Your task to perform on an android device: Open display settings Image 0: 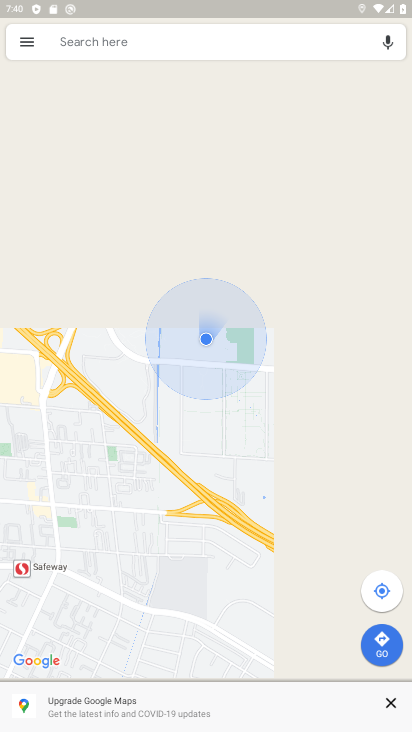
Step 0: press home button
Your task to perform on an android device: Open display settings Image 1: 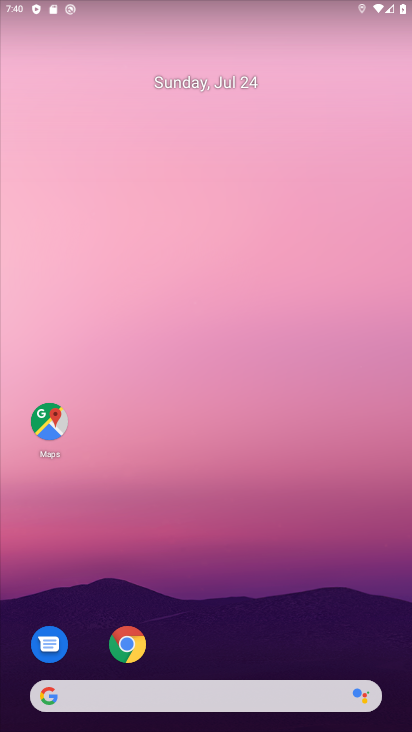
Step 1: drag from (258, 636) to (325, 9)
Your task to perform on an android device: Open display settings Image 2: 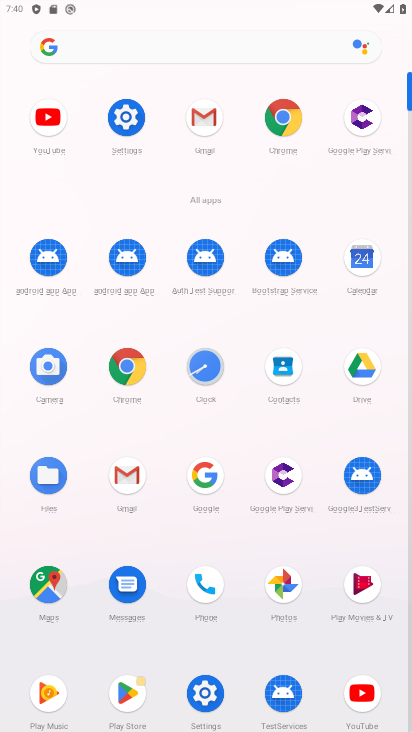
Step 2: click (137, 124)
Your task to perform on an android device: Open display settings Image 3: 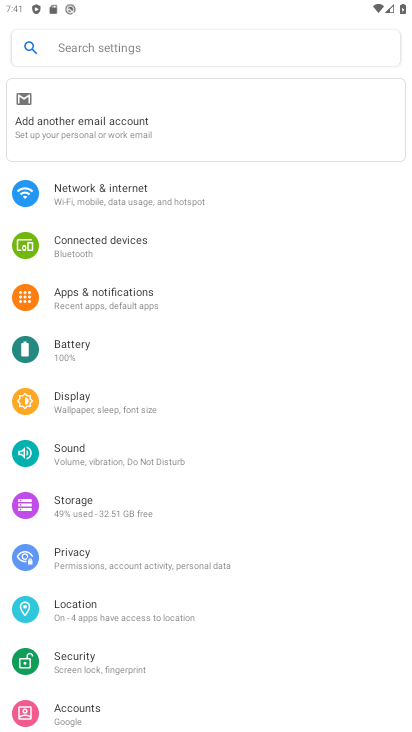
Step 3: click (110, 405)
Your task to perform on an android device: Open display settings Image 4: 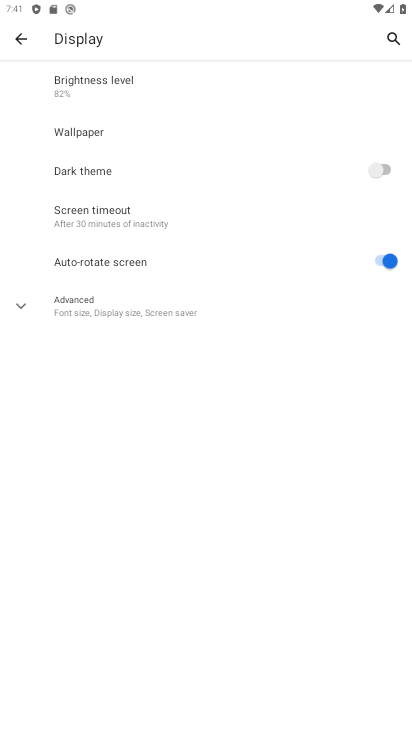
Step 4: task complete